Your task to perform on an android device: open the mobile data screen to see how much data has been used Image 0: 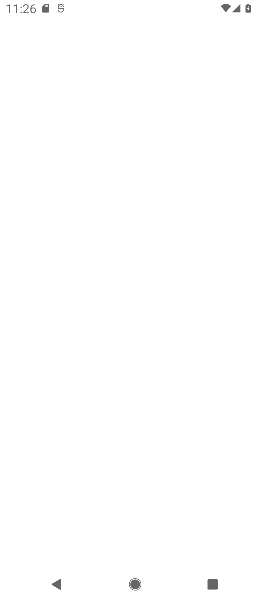
Step 0: press home button
Your task to perform on an android device: open the mobile data screen to see how much data has been used Image 1: 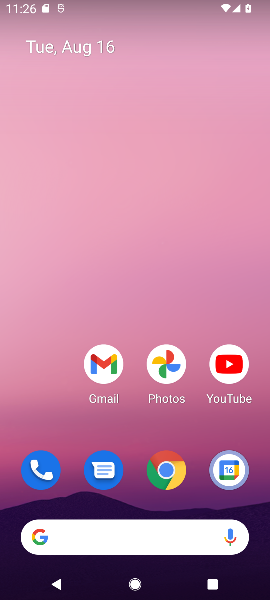
Step 1: drag from (46, 408) to (75, 13)
Your task to perform on an android device: open the mobile data screen to see how much data has been used Image 2: 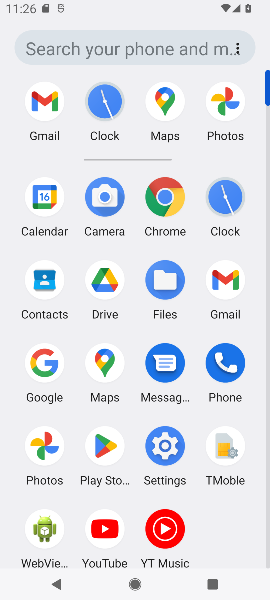
Step 2: click (165, 440)
Your task to perform on an android device: open the mobile data screen to see how much data has been used Image 3: 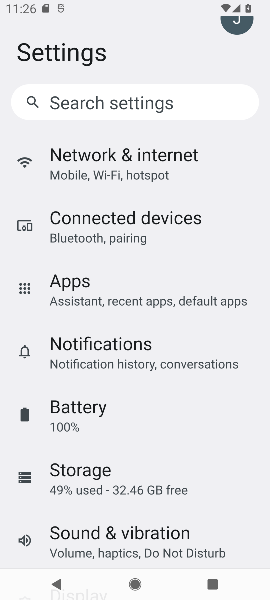
Step 3: click (161, 156)
Your task to perform on an android device: open the mobile data screen to see how much data has been used Image 4: 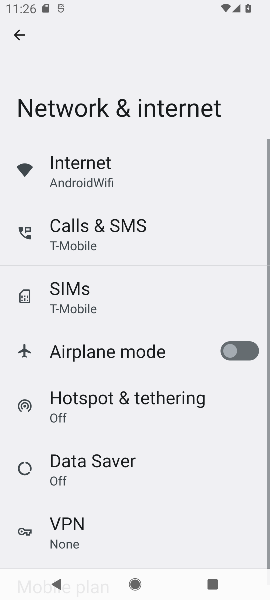
Step 4: click (81, 293)
Your task to perform on an android device: open the mobile data screen to see how much data has been used Image 5: 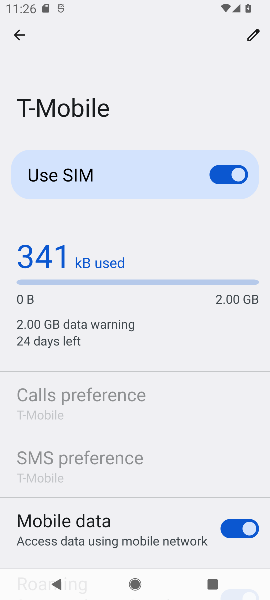
Step 5: task complete